Your task to perform on an android device: See recent photos Image 0: 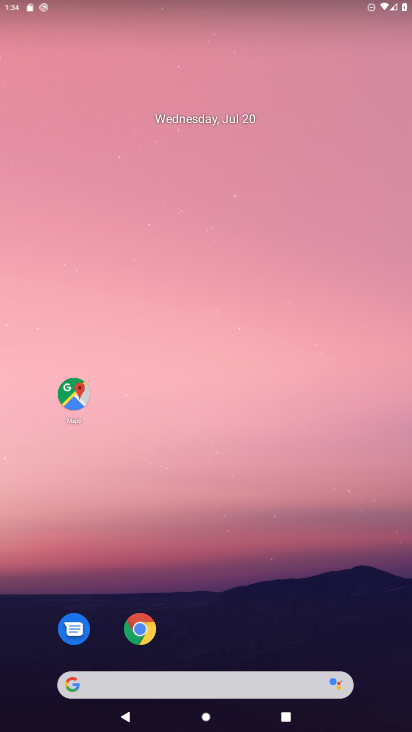
Step 0: drag from (192, 523) to (264, 150)
Your task to perform on an android device: See recent photos Image 1: 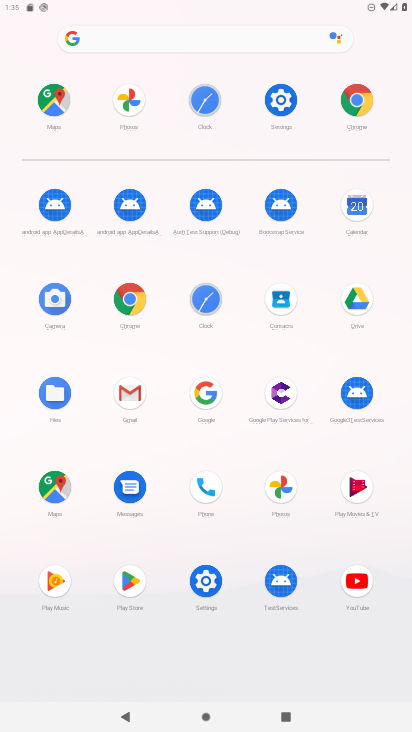
Step 1: click (277, 486)
Your task to perform on an android device: See recent photos Image 2: 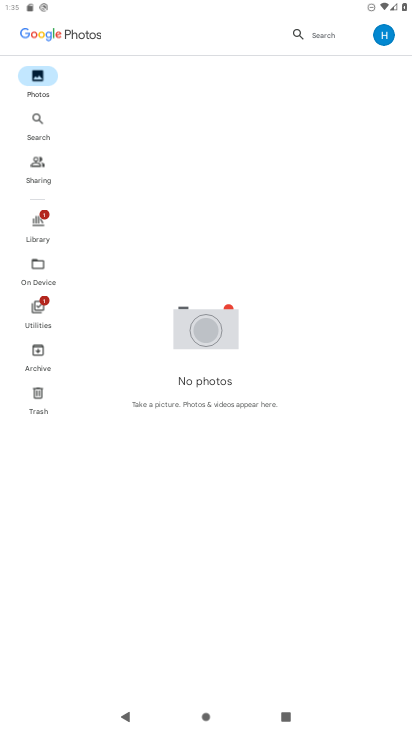
Step 2: task complete